Your task to perform on an android device: Find coffee shops on Maps Image 0: 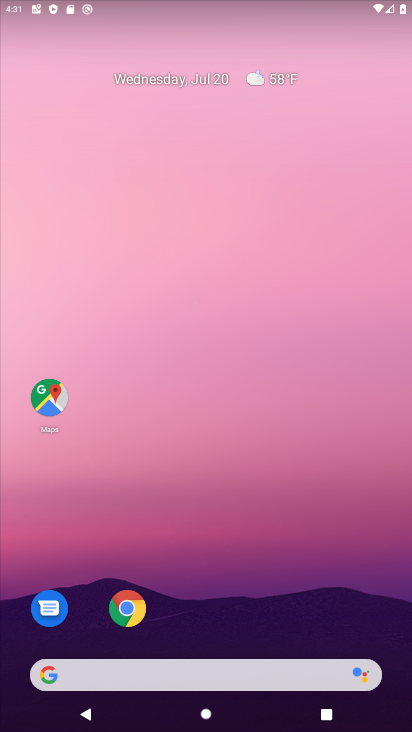
Step 0: click (43, 403)
Your task to perform on an android device: Find coffee shops on Maps Image 1: 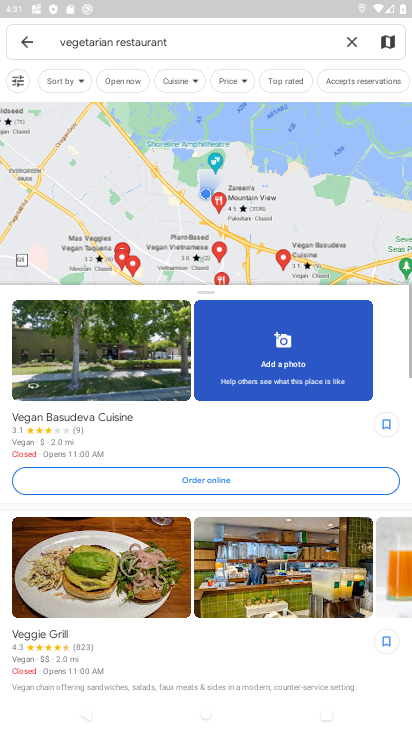
Step 1: click (354, 37)
Your task to perform on an android device: Find coffee shops on Maps Image 2: 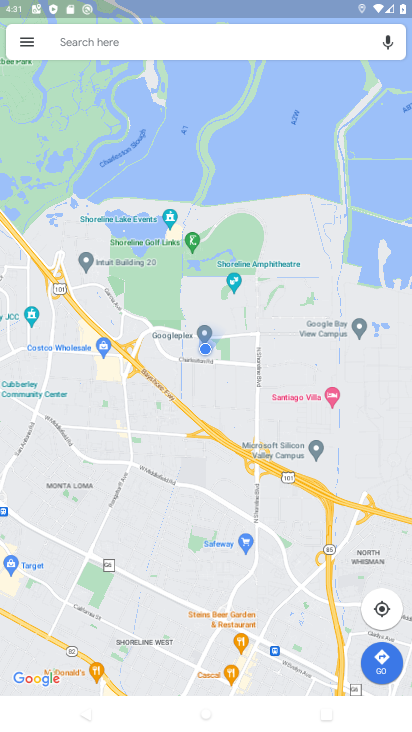
Step 2: click (196, 54)
Your task to perform on an android device: Find coffee shops on Maps Image 3: 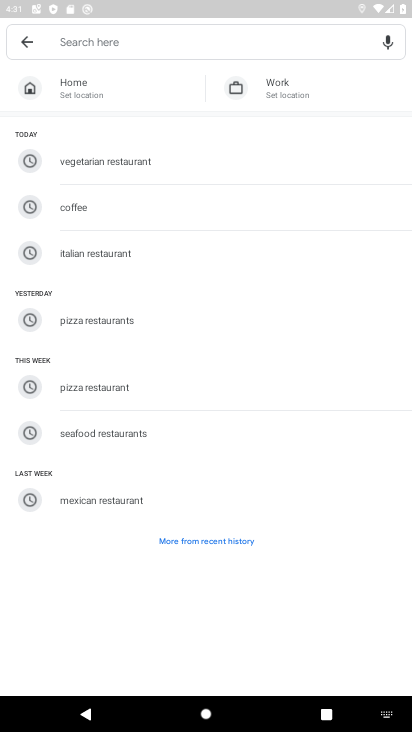
Step 3: click (76, 218)
Your task to perform on an android device: Find coffee shops on Maps Image 4: 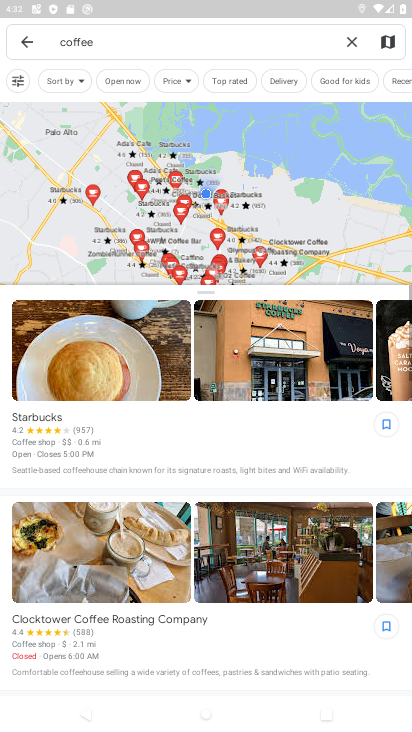
Step 4: task complete